Your task to perform on an android device: toggle wifi Image 0: 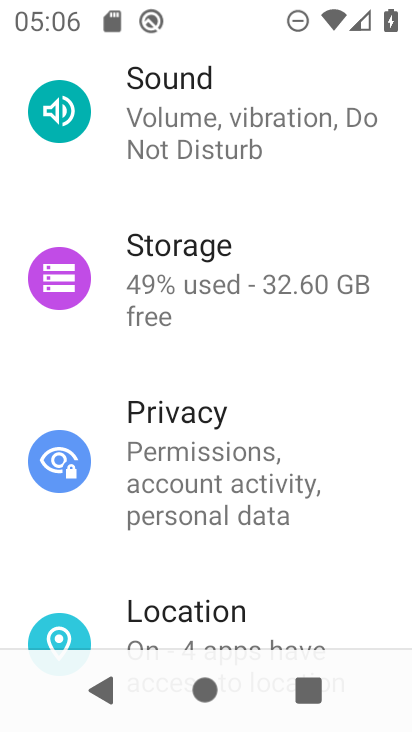
Step 0: drag from (198, 11) to (180, 450)
Your task to perform on an android device: toggle wifi Image 1: 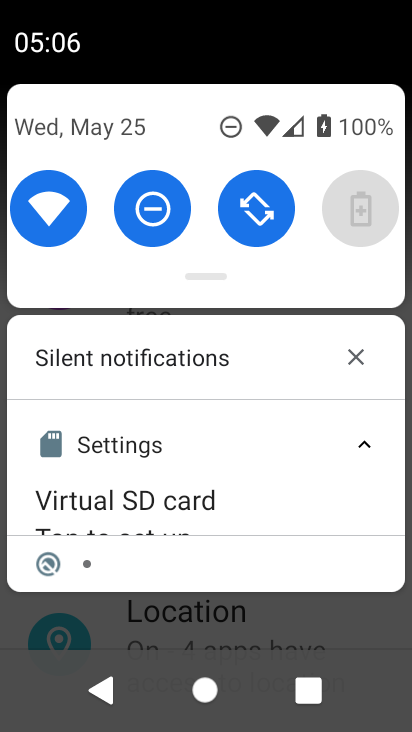
Step 1: click (67, 206)
Your task to perform on an android device: toggle wifi Image 2: 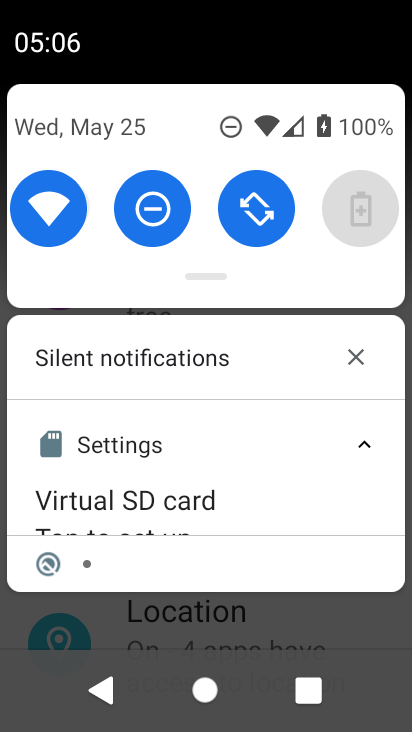
Step 2: click (67, 206)
Your task to perform on an android device: toggle wifi Image 3: 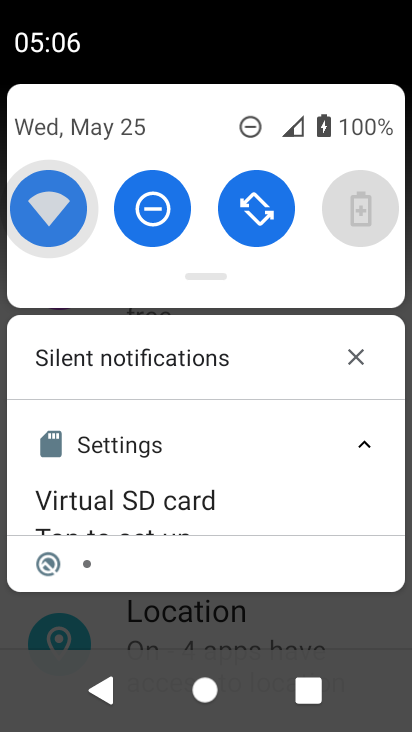
Step 3: click (67, 206)
Your task to perform on an android device: toggle wifi Image 4: 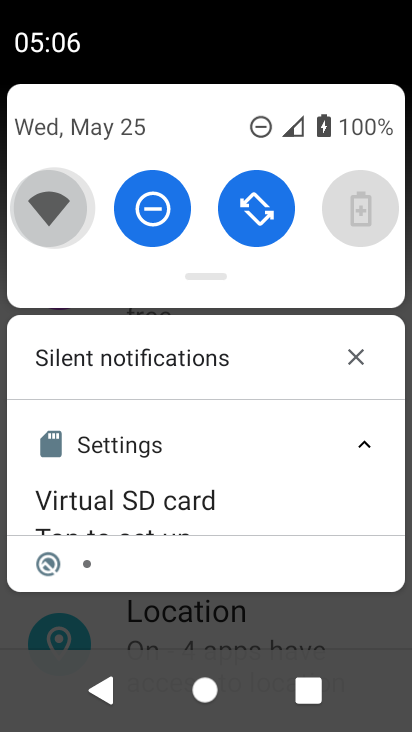
Step 4: click (67, 206)
Your task to perform on an android device: toggle wifi Image 5: 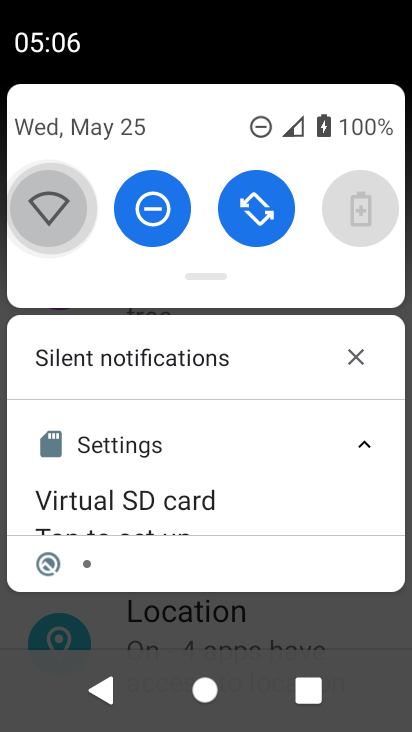
Step 5: click (67, 206)
Your task to perform on an android device: toggle wifi Image 6: 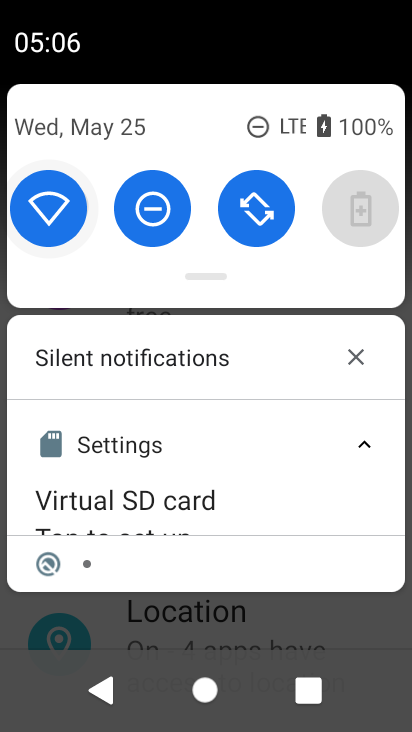
Step 6: click (67, 206)
Your task to perform on an android device: toggle wifi Image 7: 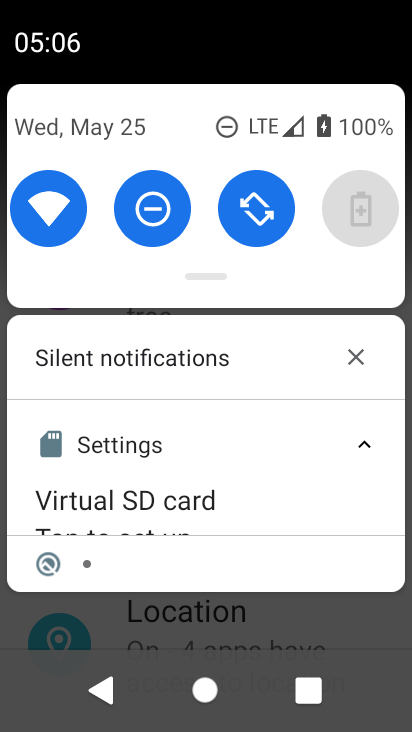
Step 7: task complete